Your task to perform on an android device: Open location settings Image 0: 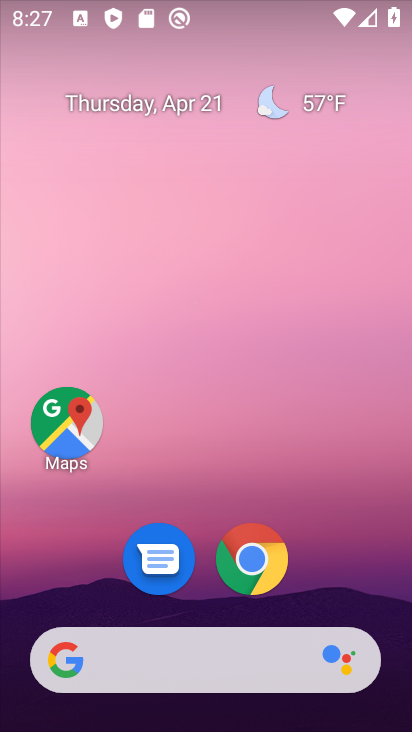
Step 0: drag from (167, 634) to (240, 8)
Your task to perform on an android device: Open location settings Image 1: 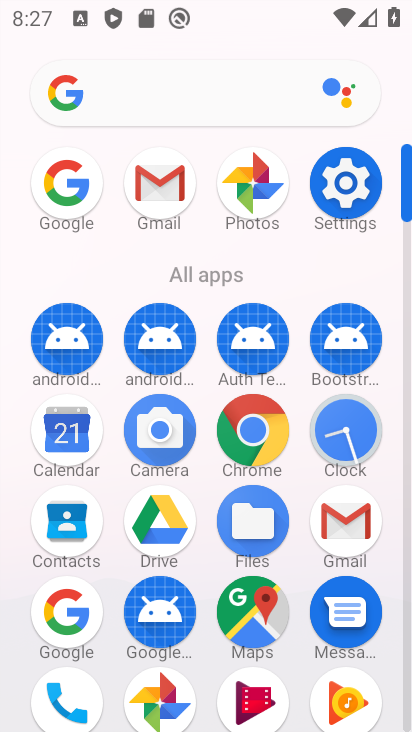
Step 1: click (355, 195)
Your task to perform on an android device: Open location settings Image 2: 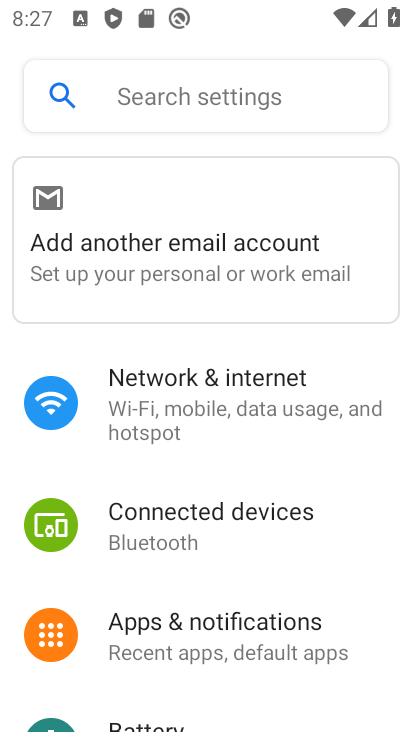
Step 2: drag from (249, 583) to (224, 20)
Your task to perform on an android device: Open location settings Image 3: 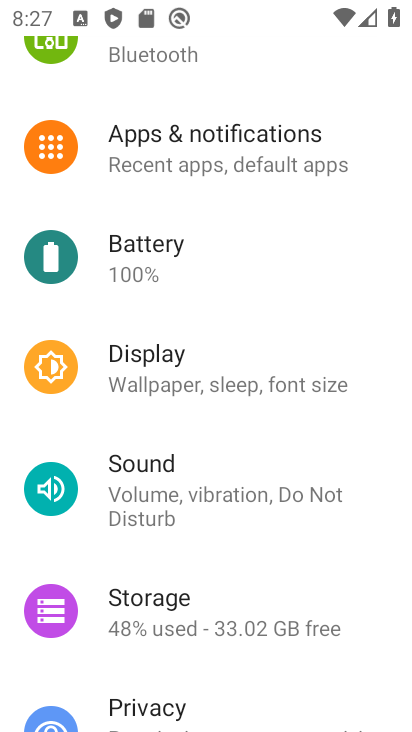
Step 3: drag from (321, 629) to (309, 199)
Your task to perform on an android device: Open location settings Image 4: 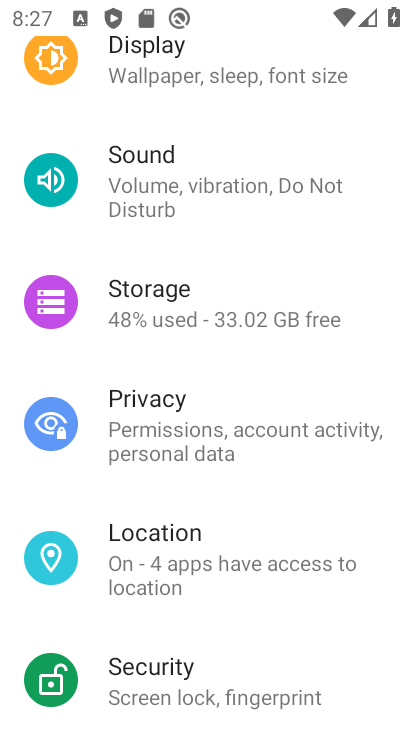
Step 4: click (219, 560)
Your task to perform on an android device: Open location settings Image 5: 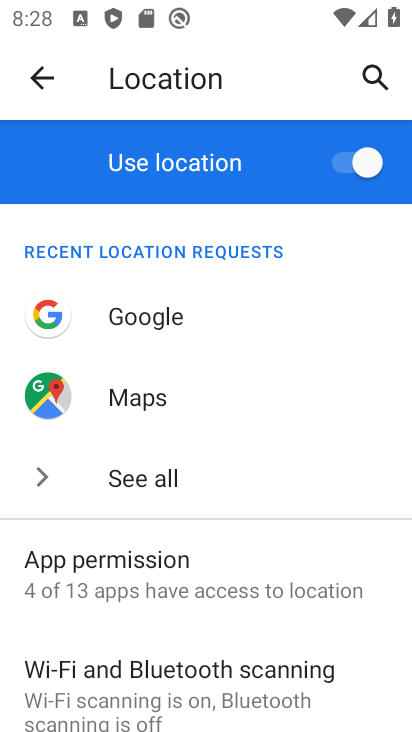
Step 5: task complete